Your task to perform on an android device: see creations saved in the google photos Image 0: 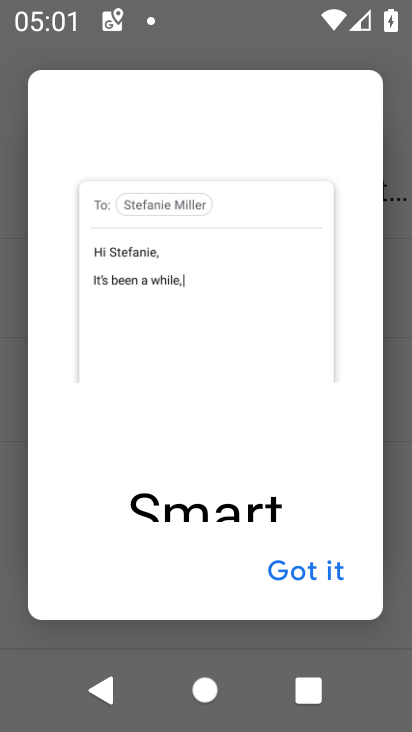
Step 0: press home button
Your task to perform on an android device: see creations saved in the google photos Image 1: 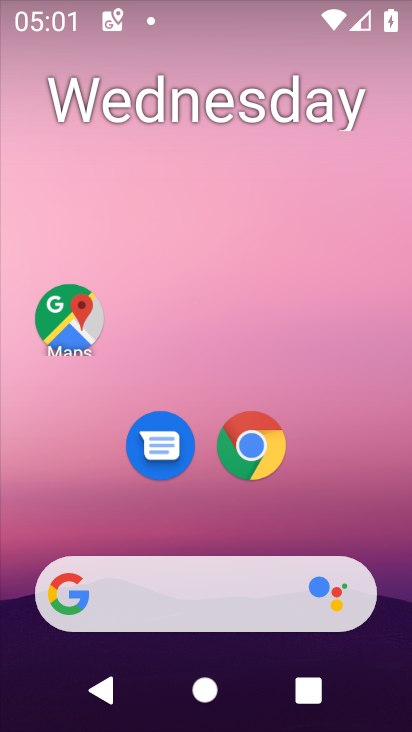
Step 1: press home button
Your task to perform on an android device: see creations saved in the google photos Image 2: 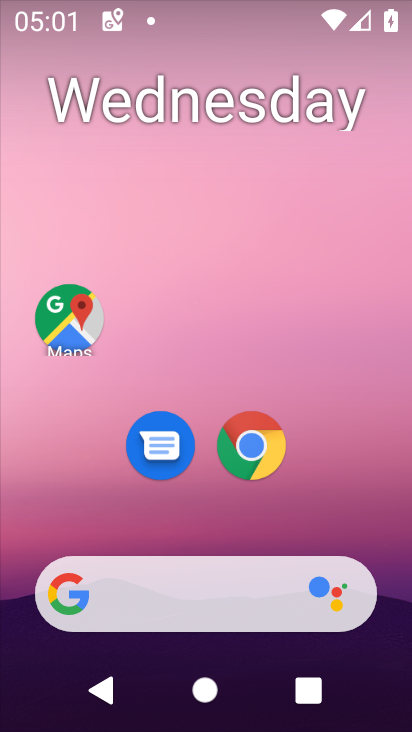
Step 2: click (277, 67)
Your task to perform on an android device: see creations saved in the google photos Image 3: 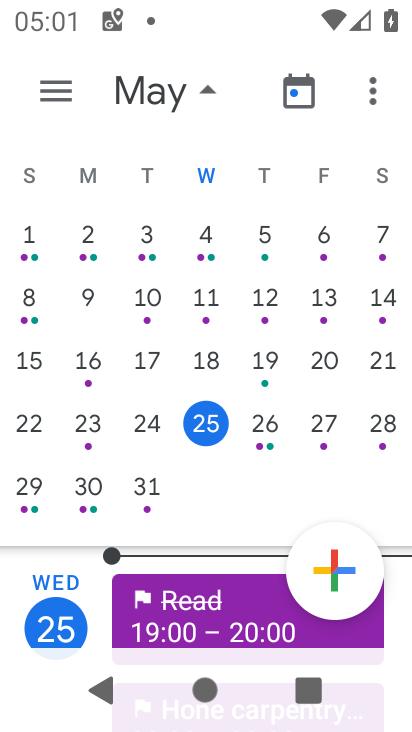
Step 3: press home button
Your task to perform on an android device: see creations saved in the google photos Image 4: 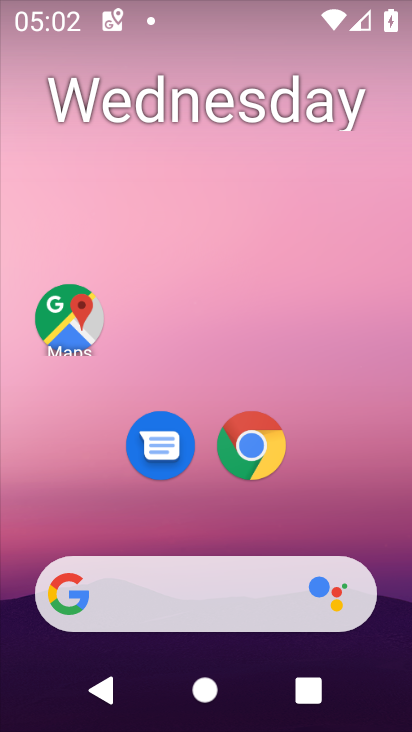
Step 4: drag from (216, 529) to (311, 6)
Your task to perform on an android device: see creations saved in the google photos Image 5: 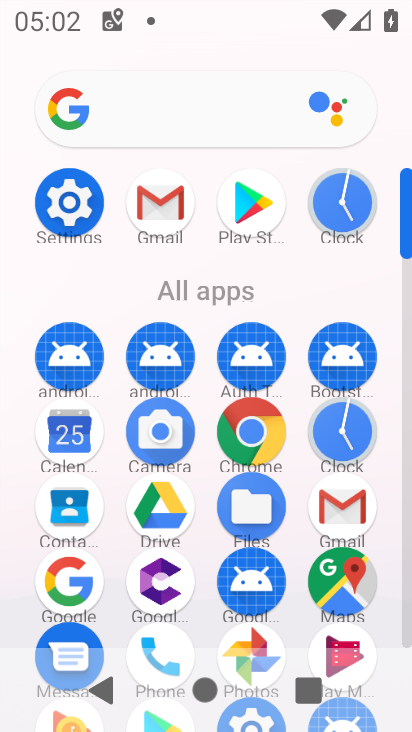
Step 5: drag from (207, 454) to (208, 59)
Your task to perform on an android device: see creations saved in the google photos Image 6: 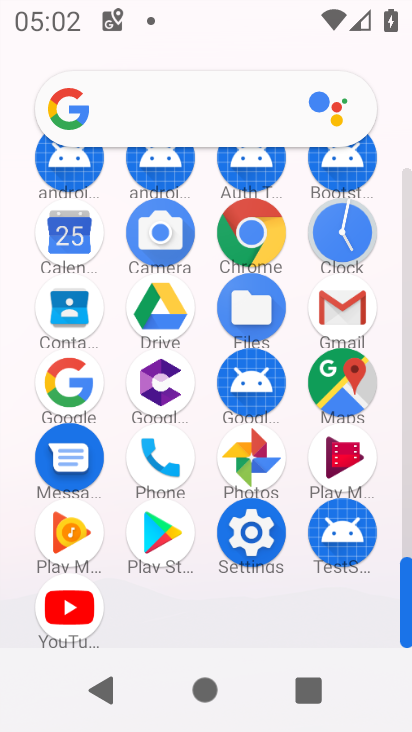
Step 6: click (255, 468)
Your task to perform on an android device: see creations saved in the google photos Image 7: 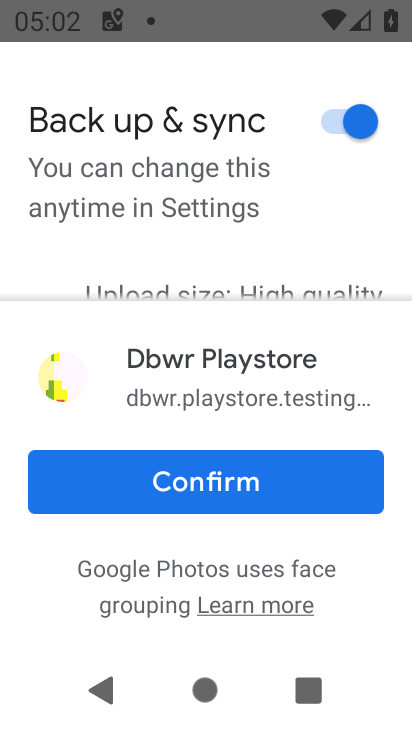
Step 7: click (153, 488)
Your task to perform on an android device: see creations saved in the google photos Image 8: 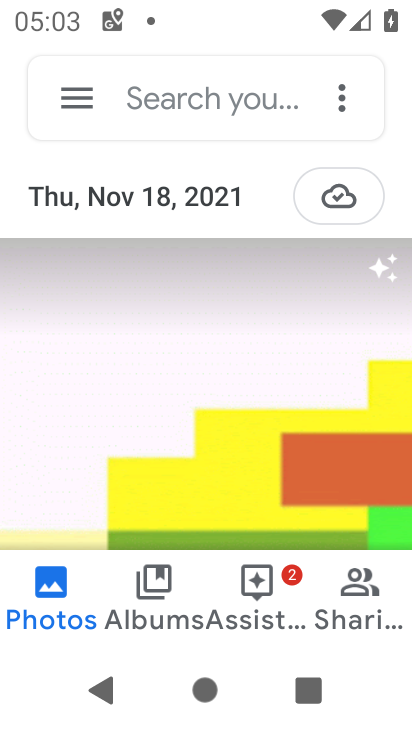
Step 8: task complete